Your task to perform on an android device: turn off priority inbox in the gmail app Image 0: 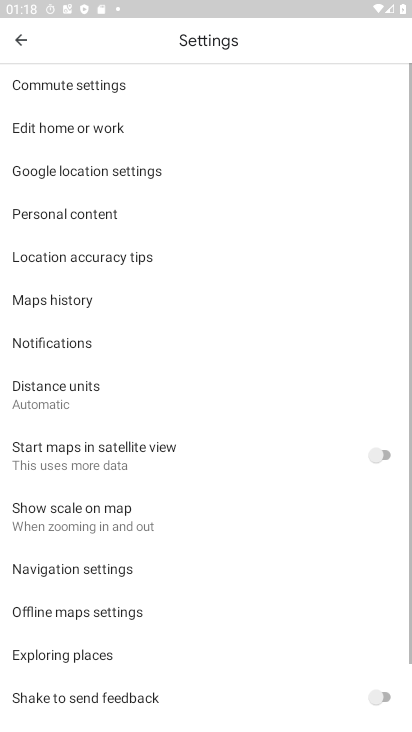
Step 0: press home button
Your task to perform on an android device: turn off priority inbox in the gmail app Image 1: 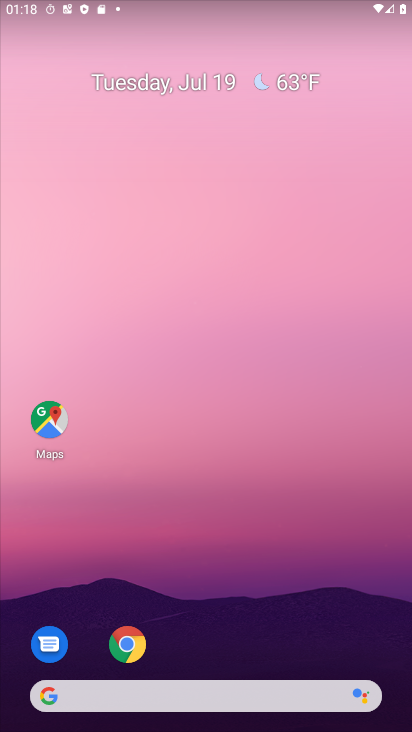
Step 1: drag from (213, 684) to (175, 167)
Your task to perform on an android device: turn off priority inbox in the gmail app Image 2: 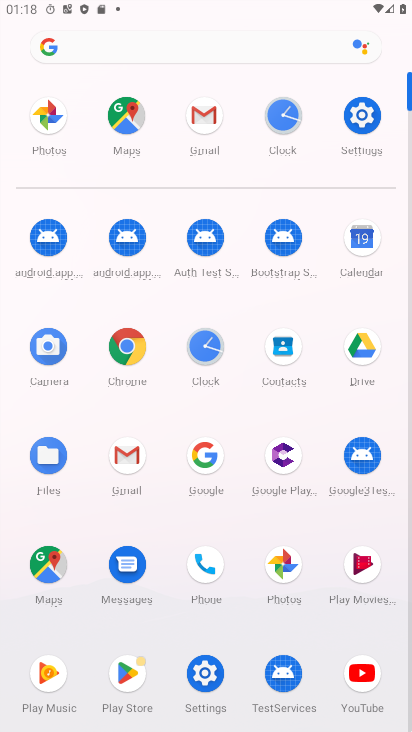
Step 2: click (134, 443)
Your task to perform on an android device: turn off priority inbox in the gmail app Image 3: 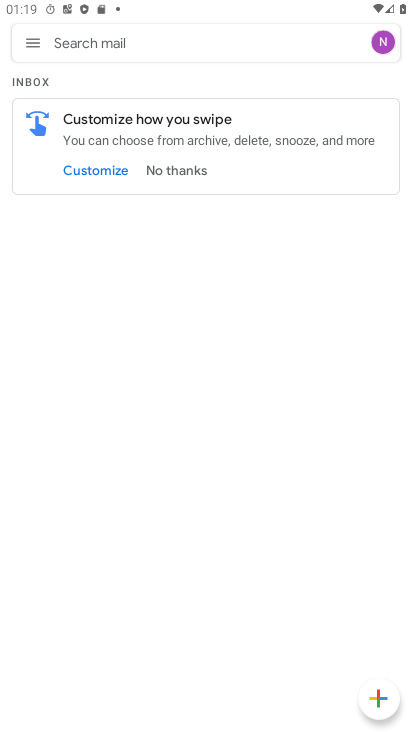
Step 3: click (26, 42)
Your task to perform on an android device: turn off priority inbox in the gmail app Image 4: 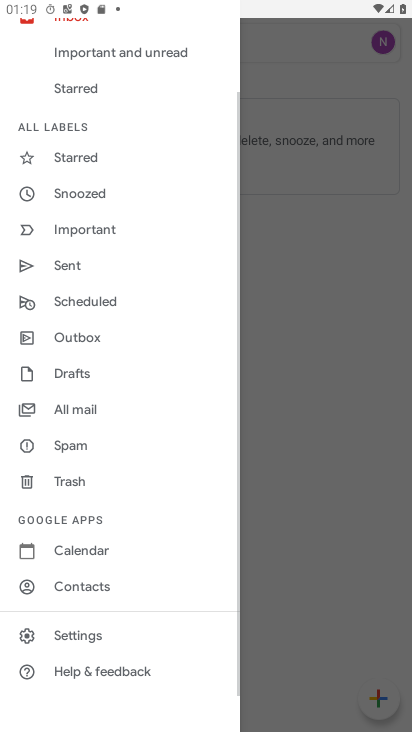
Step 4: click (64, 637)
Your task to perform on an android device: turn off priority inbox in the gmail app Image 5: 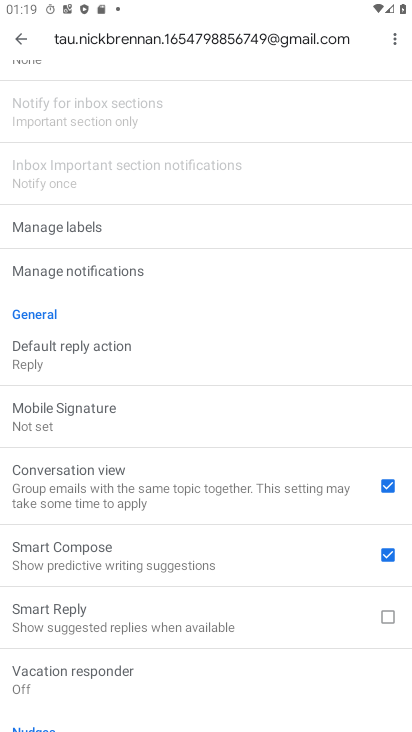
Step 5: drag from (156, 139) to (183, 590)
Your task to perform on an android device: turn off priority inbox in the gmail app Image 6: 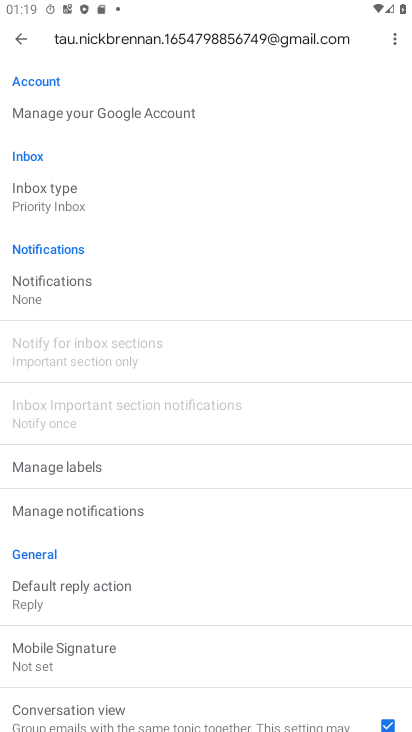
Step 6: click (72, 196)
Your task to perform on an android device: turn off priority inbox in the gmail app Image 7: 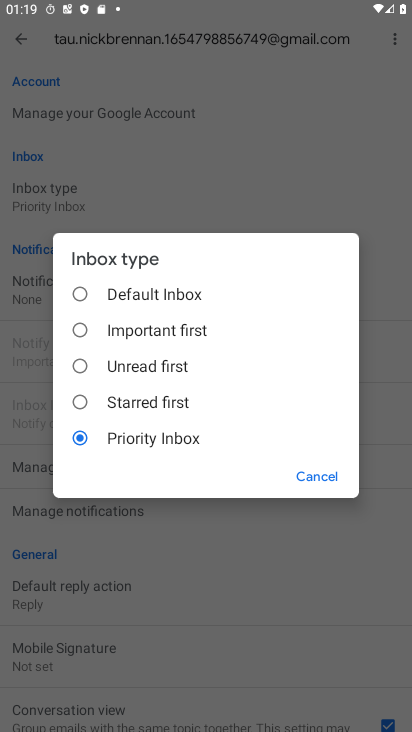
Step 7: click (82, 294)
Your task to perform on an android device: turn off priority inbox in the gmail app Image 8: 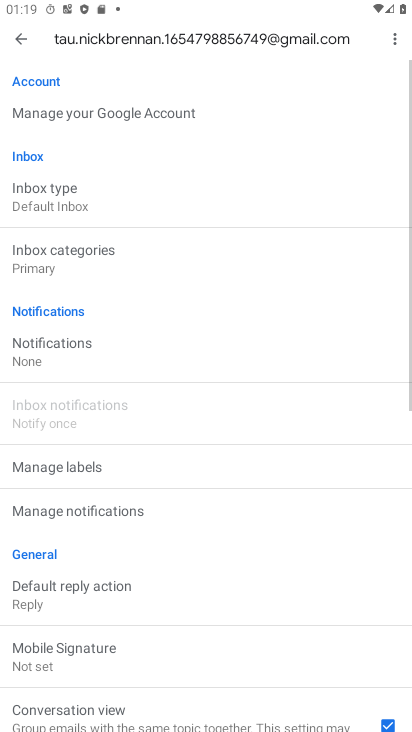
Step 8: task complete